Your task to perform on an android device: Open the calendar app, open the side menu, and click the "Day" option Image 0: 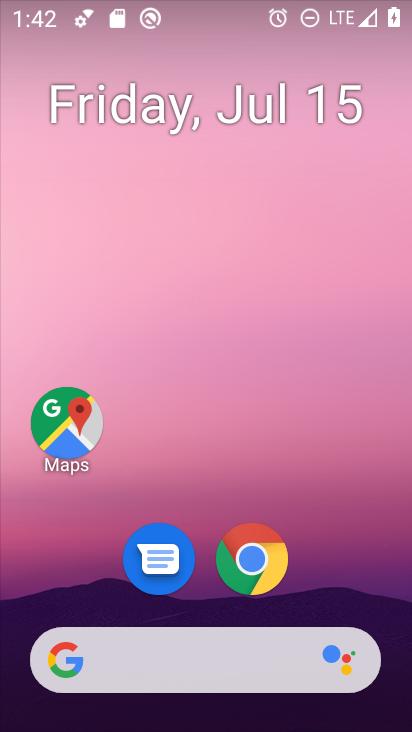
Step 0: drag from (359, 572) to (366, 140)
Your task to perform on an android device: Open the calendar app, open the side menu, and click the "Day" option Image 1: 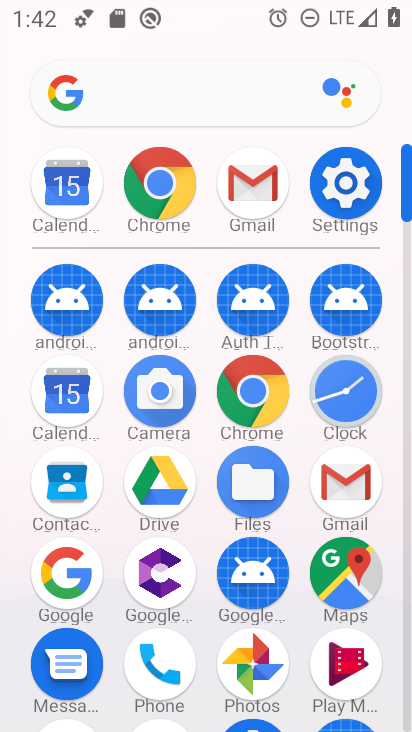
Step 1: click (67, 401)
Your task to perform on an android device: Open the calendar app, open the side menu, and click the "Day" option Image 2: 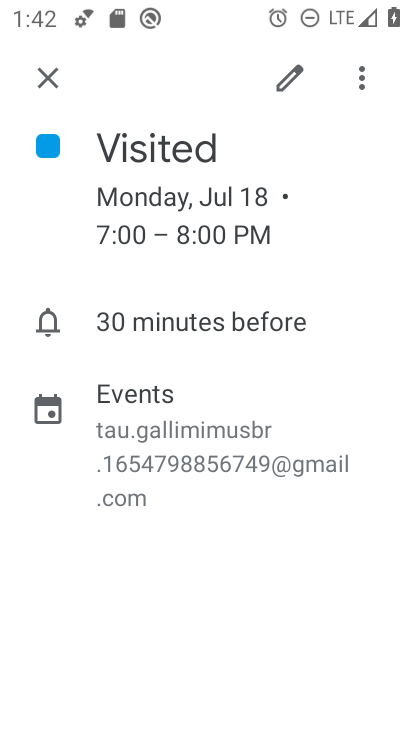
Step 2: press back button
Your task to perform on an android device: Open the calendar app, open the side menu, and click the "Day" option Image 3: 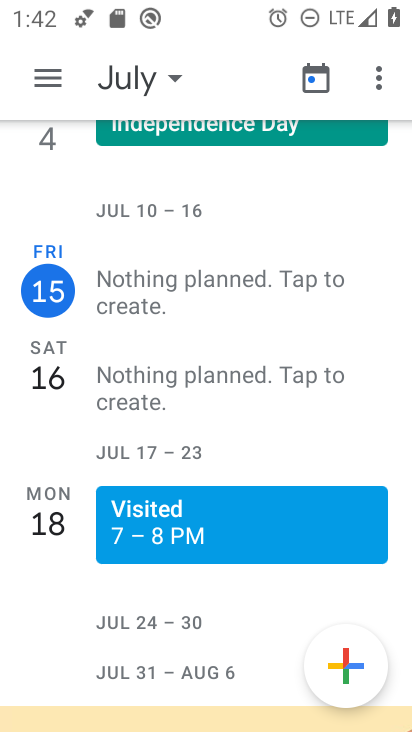
Step 3: click (54, 70)
Your task to perform on an android device: Open the calendar app, open the side menu, and click the "Day" option Image 4: 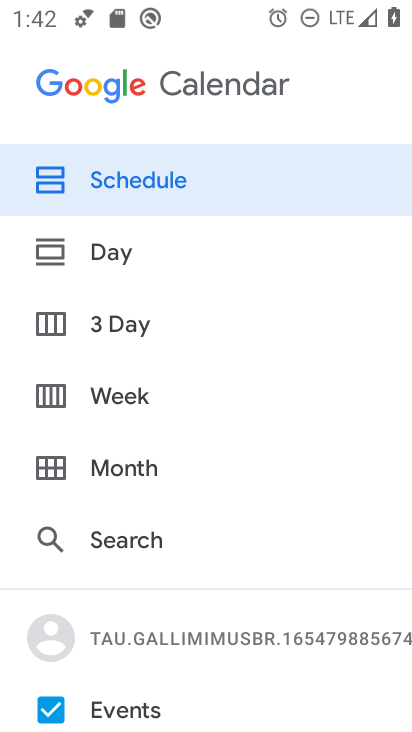
Step 4: click (166, 255)
Your task to perform on an android device: Open the calendar app, open the side menu, and click the "Day" option Image 5: 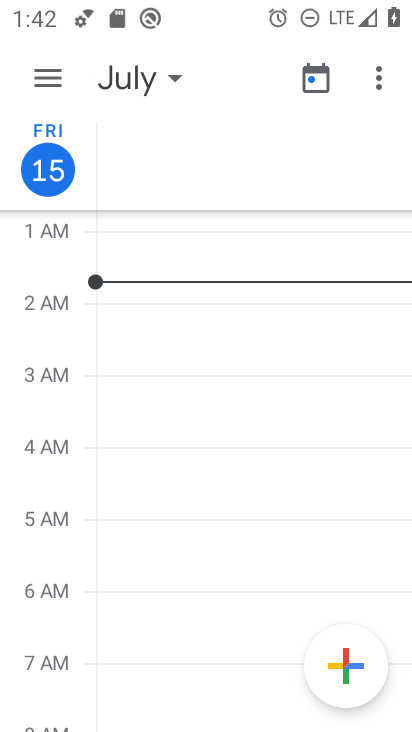
Step 5: task complete